Your task to perform on an android device: Go to Reddit.com Image 0: 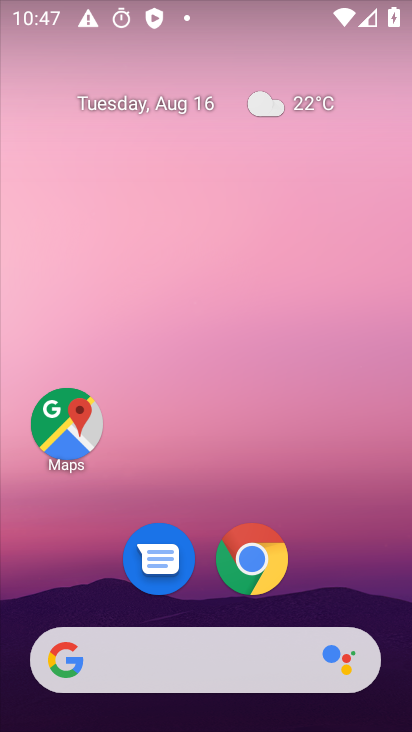
Step 0: click (253, 562)
Your task to perform on an android device: Go to Reddit.com Image 1: 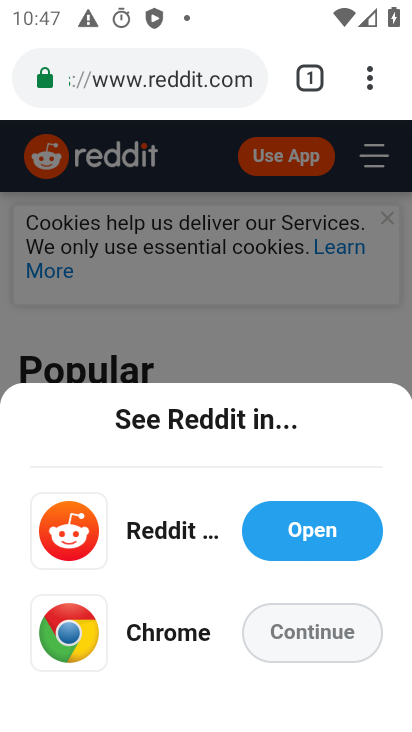
Step 1: click (284, 624)
Your task to perform on an android device: Go to Reddit.com Image 2: 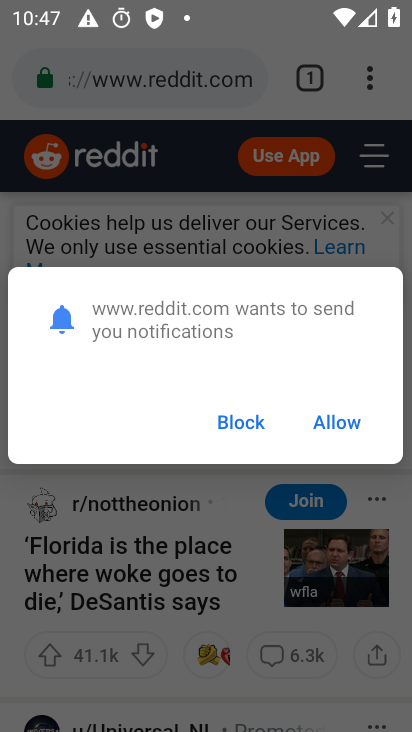
Step 2: click (360, 419)
Your task to perform on an android device: Go to Reddit.com Image 3: 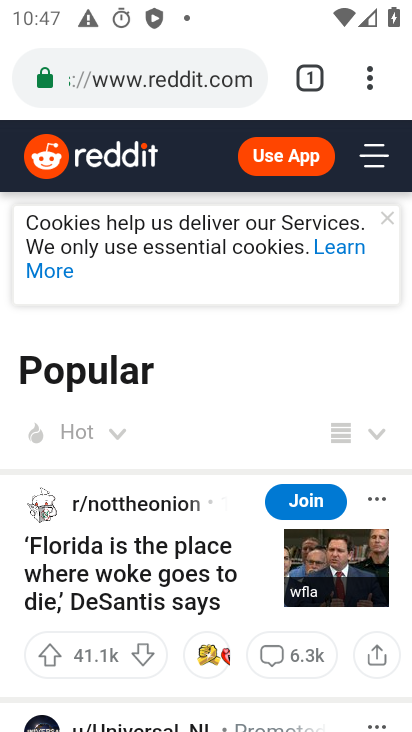
Step 3: task complete